Your task to perform on an android device: How big is a blue whale? Image 0: 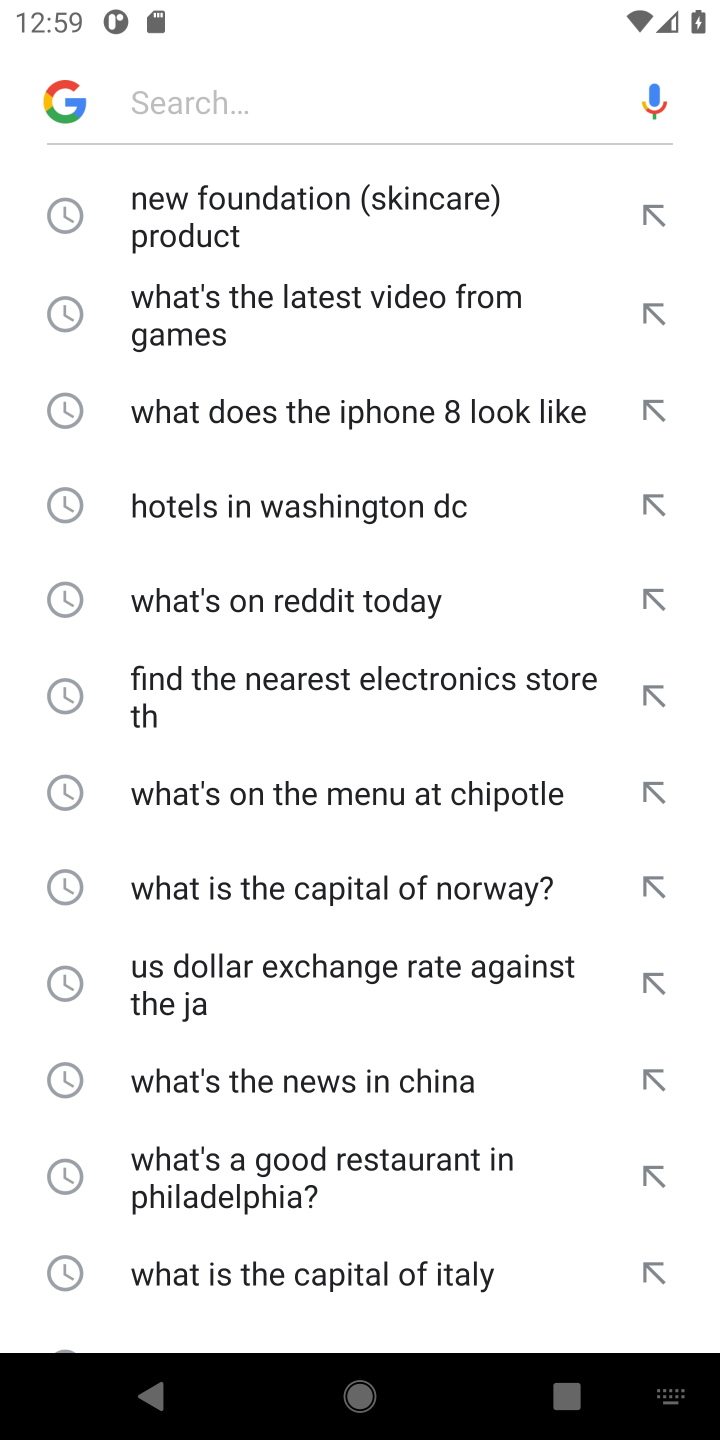
Step 0: press home button
Your task to perform on an android device: How big is a blue whale? Image 1: 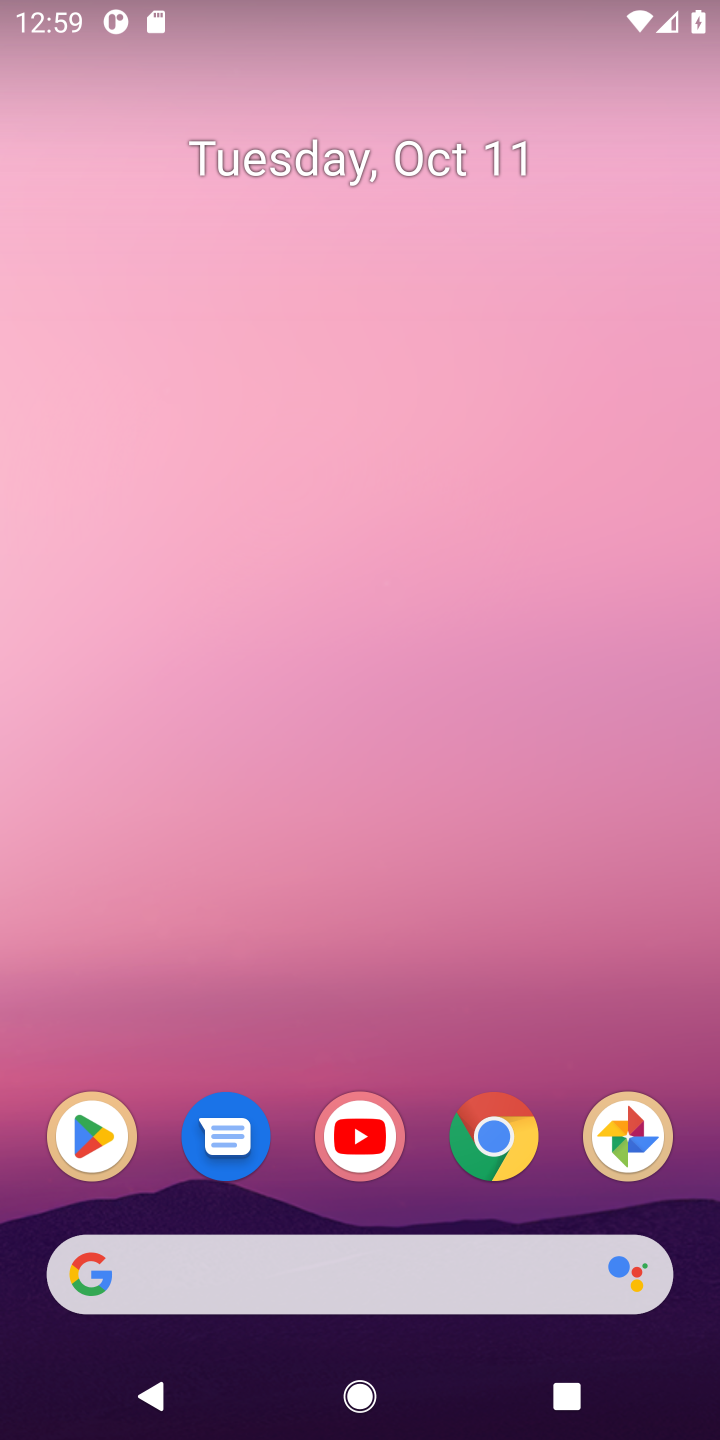
Step 1: click (340, 1267)
Your task to perform on an android device: How big is a blue whale? Image 2: 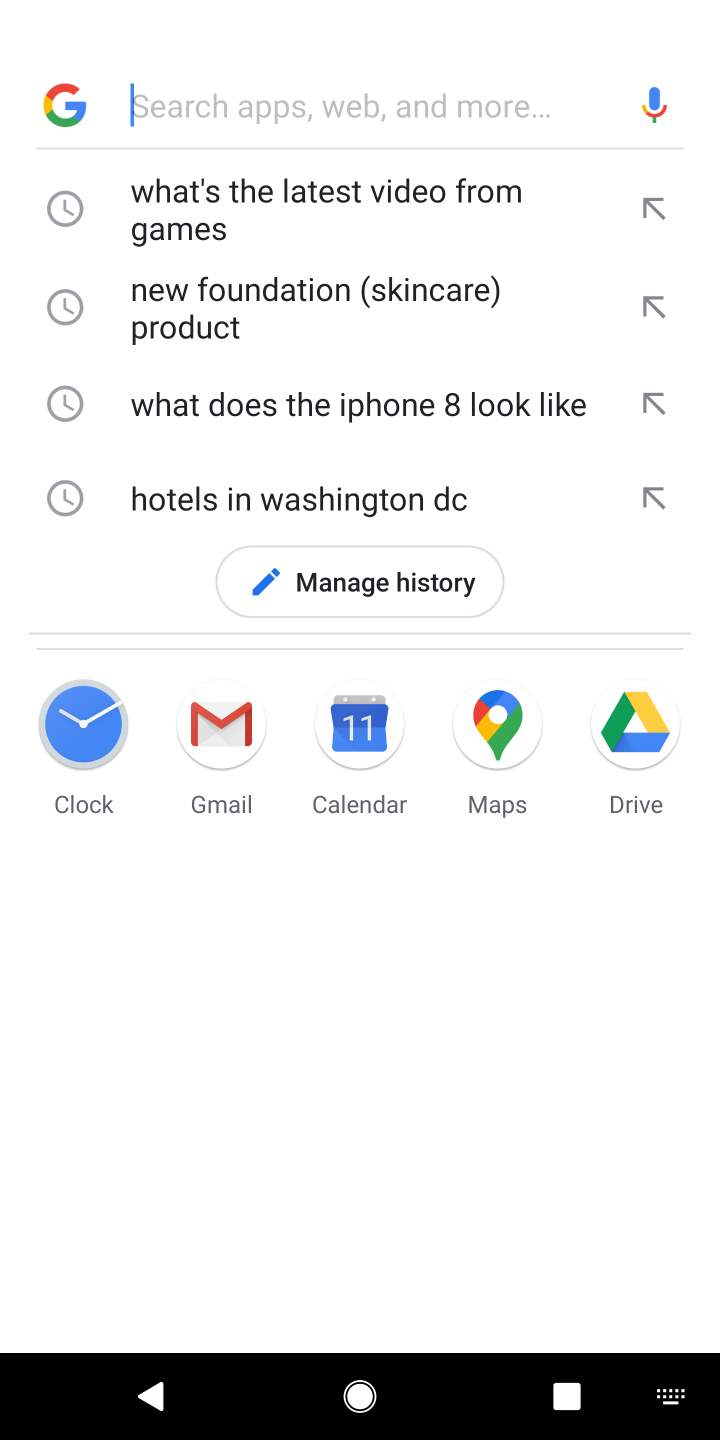
Step 2: type "How big is a blue whale"
Your task to perform on an android device: How big is a blue whale? Image 3: 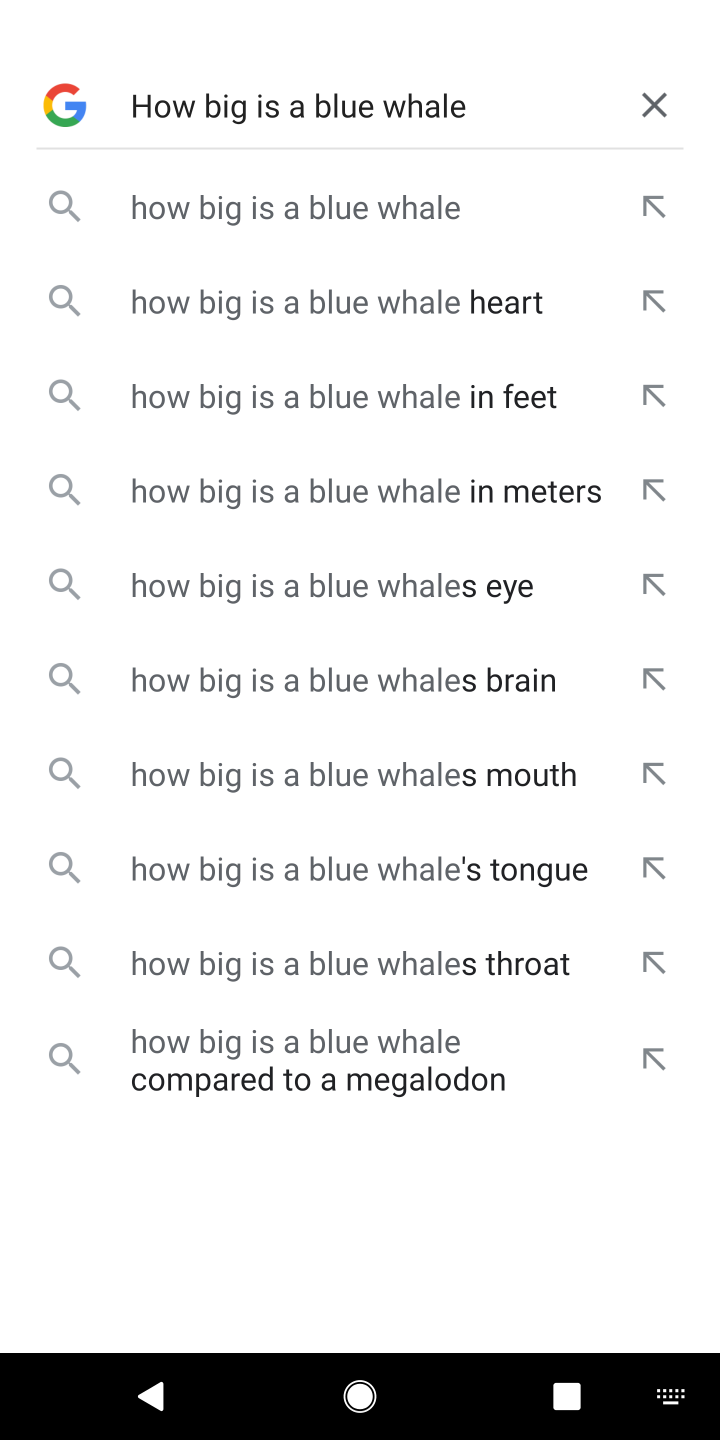
Step 3: press enter
Your task to perform on an android device: How big is a blue whale? Image 4: 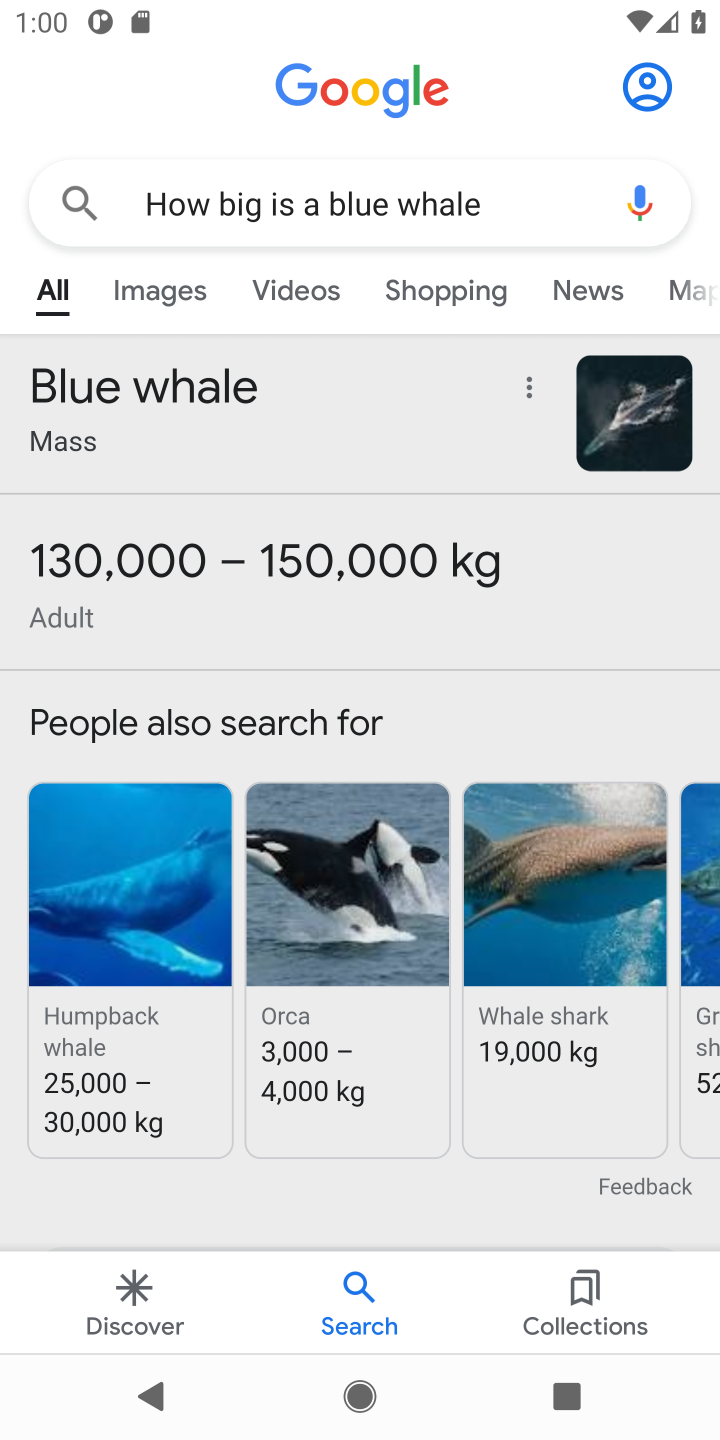
Step 4: task complete